Your task to perform on an android device: turn notification dots off Image 0: 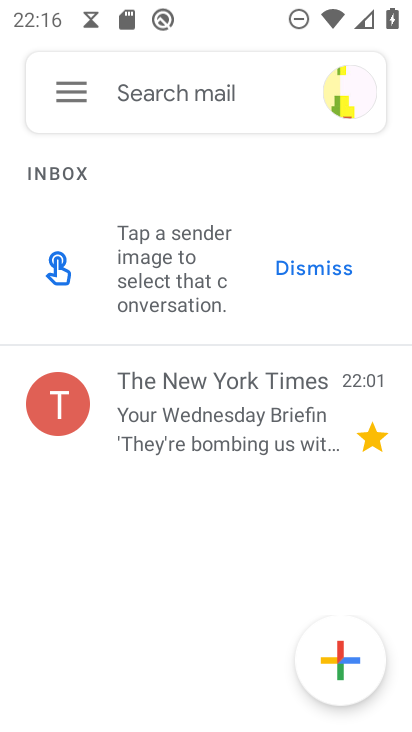
Step 0: press home button
Your task to perform on an android device: turn notification dots off Image 1: 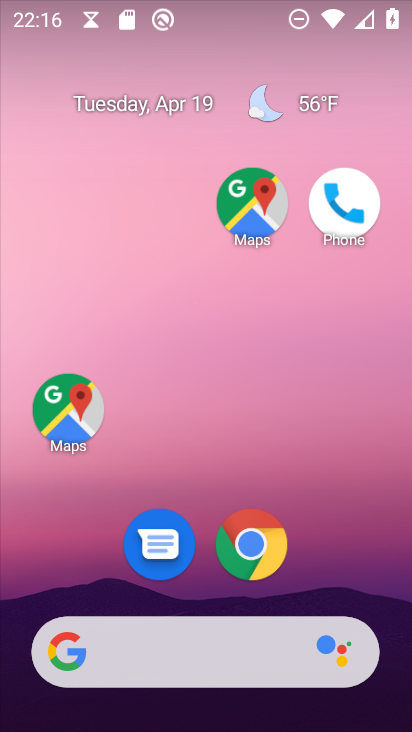
Step 1: drag from (150, 609) to (279, 71)
Your task to perform on an android device: turn notification dots off Image 2: 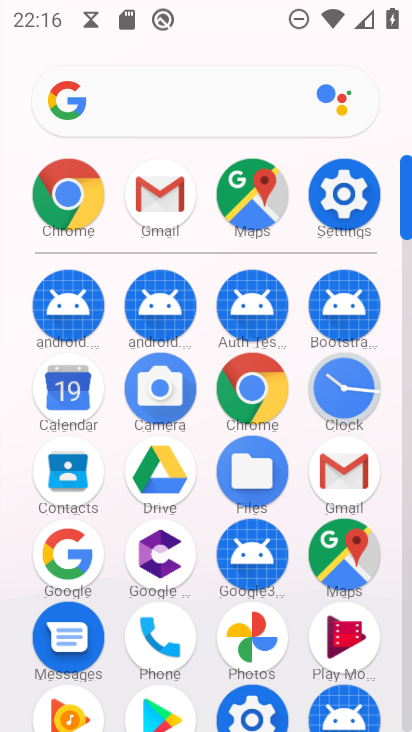
Step 2: click (343, 196)
Your task to perform on an android device: turn notification dots off Image 3: 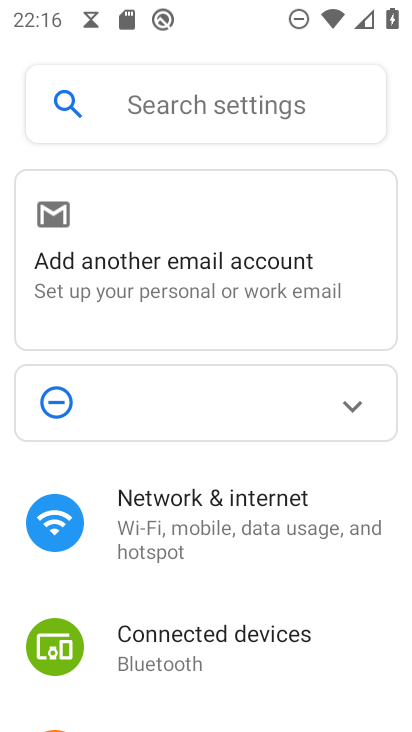
Step 3: drag from (208, 619) to (318, 91)
Your task to perform on an android device: turn notification dots off Image 4: 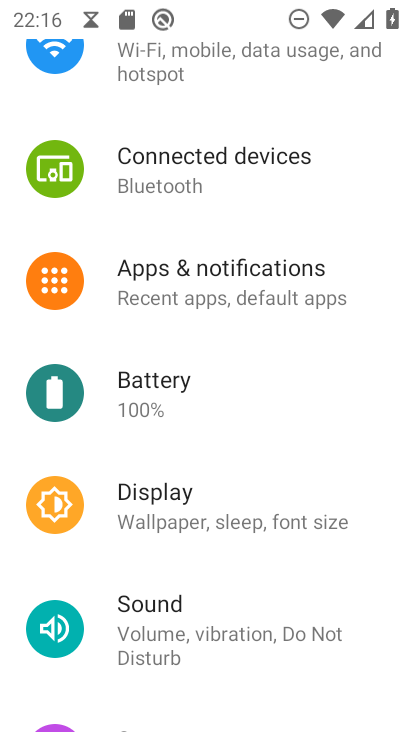
Step 4: click (220, 281)
Your task to perform on an android device: turn notification dots off Image 5: 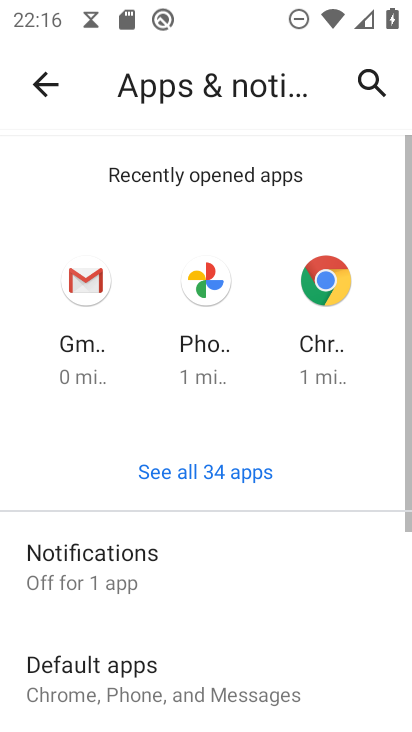
Step 5: click (131, 553)
Your task to perform on an android device: turn notification dots off Image 6: 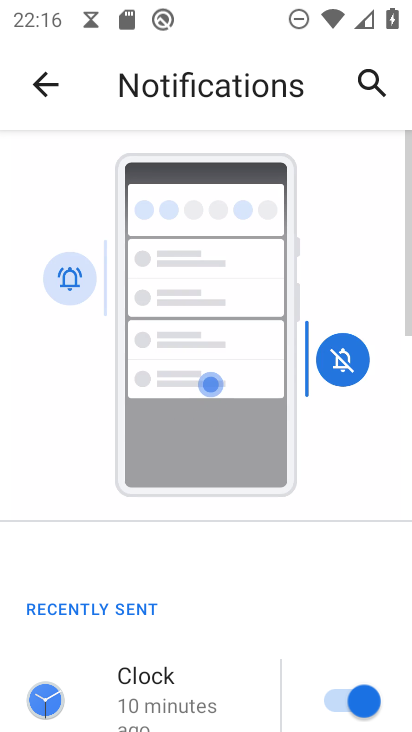
Step 6: drag from (339, 225) to (395, 96)
Your task to perform on an android device: turn notification dots off Image 7: 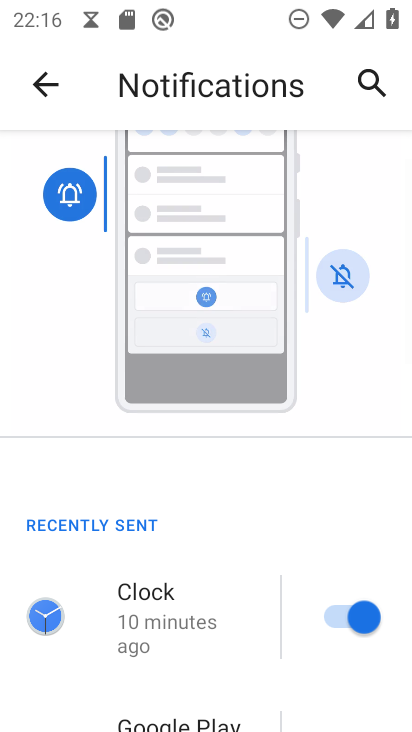
Step 7: drag from (223, 589) to (347, 80)
Your task to perform on an android device: turn notification dots off Image 8: 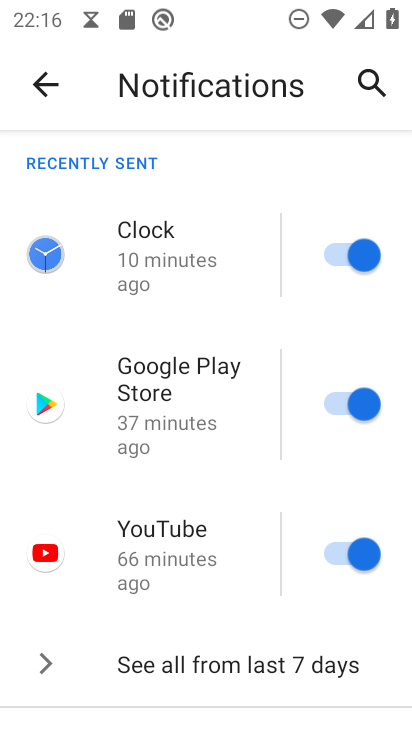
Step 8: drag from (198, 666) to (317, 213)
Your task to perform on an android device: turn notification dots off Image 9: 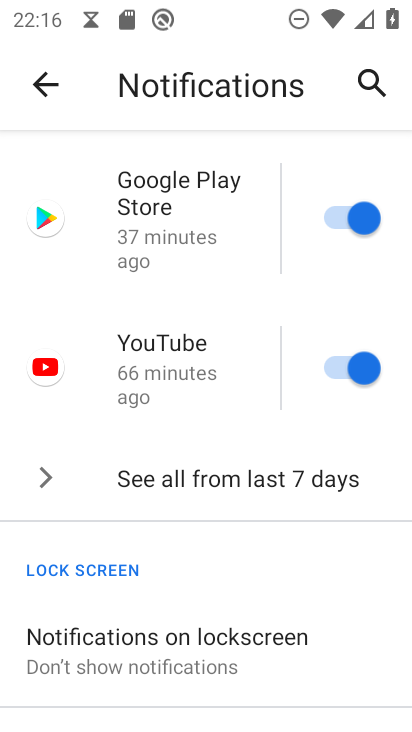
Step 9: drag from (220, 495) to (350, 87)
Your task to perform on an android device: turn notification dots off Image 10: 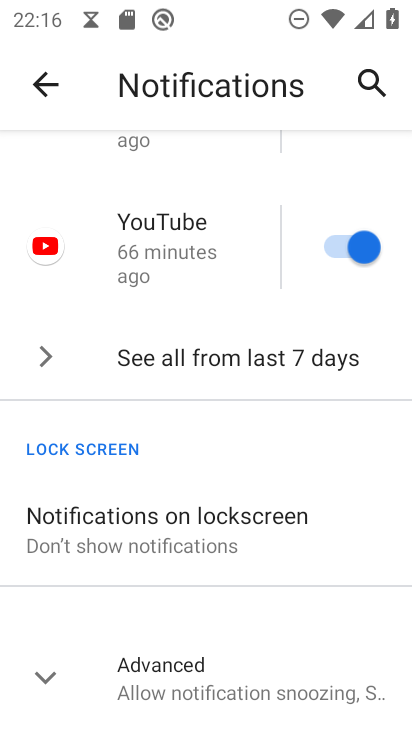
Step 10: click (152, 671)
Your task to perform on an android device: turn notification dots off Image 11: 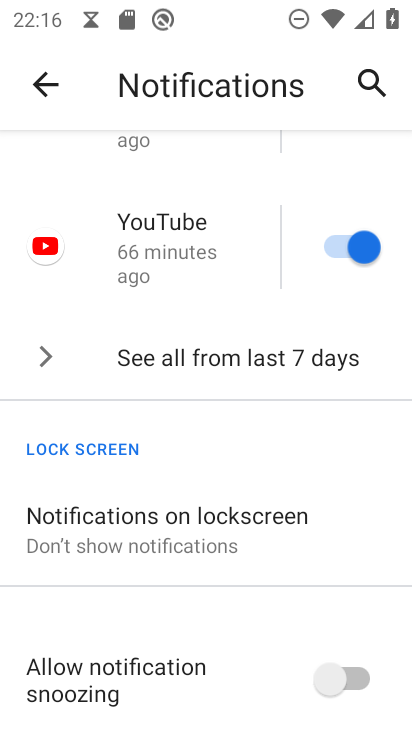
Step 11: task complete